Your task to perform on an android device: Open Youtube and go to the subscriptions tab Image 0: 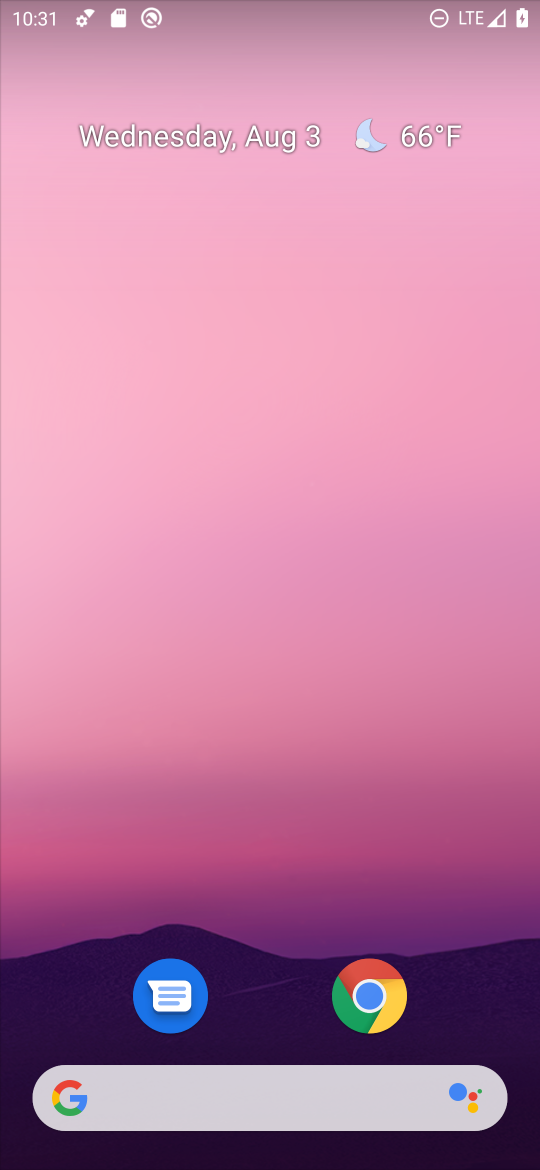
Step 0: drag from (433, 540) to (443, 0)
Your task to perform on an android device: Open Youtube and go to the subscriptions tab Image 1: 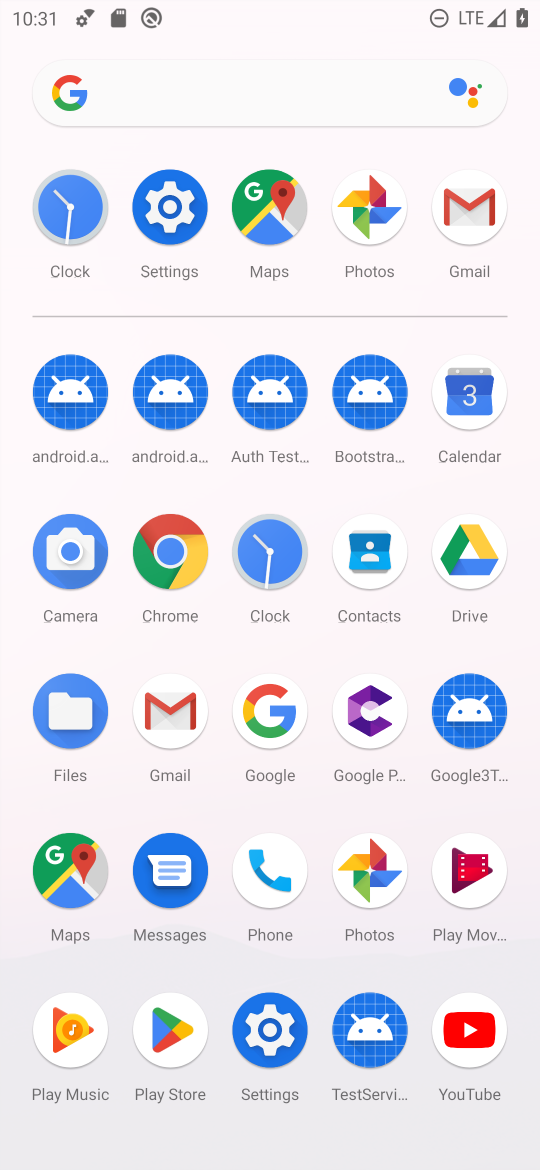
Step 1: click (472, 1024)
Your task to perform on an android device: Open Youtube and go to the subscriptions tab Image 2: 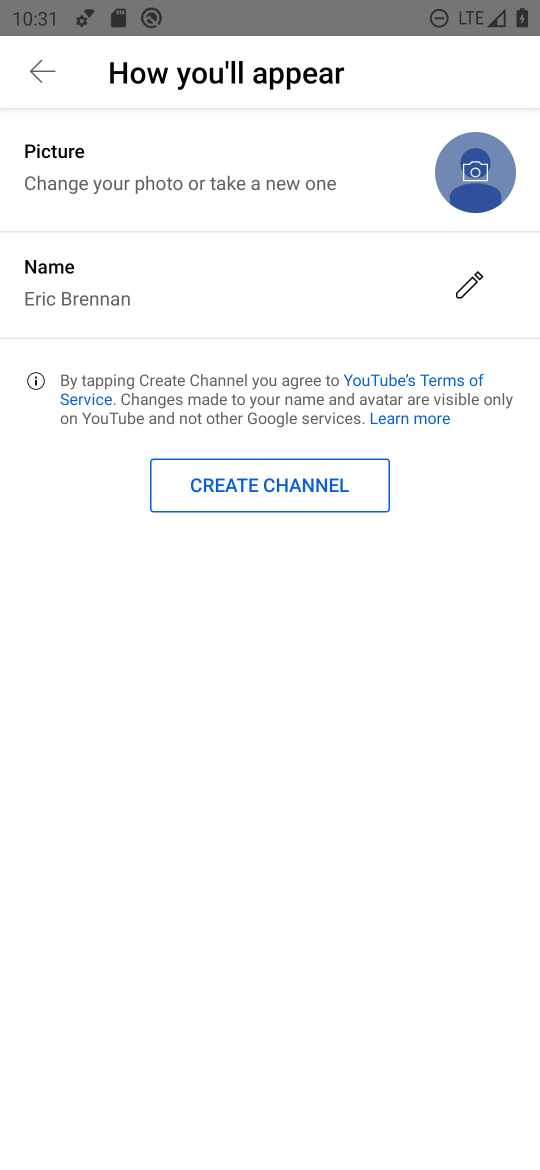
Step 2: click (46, 70)
Your task to perform on an android device: Open Youtube and go to the subscriptions tab Image 3: 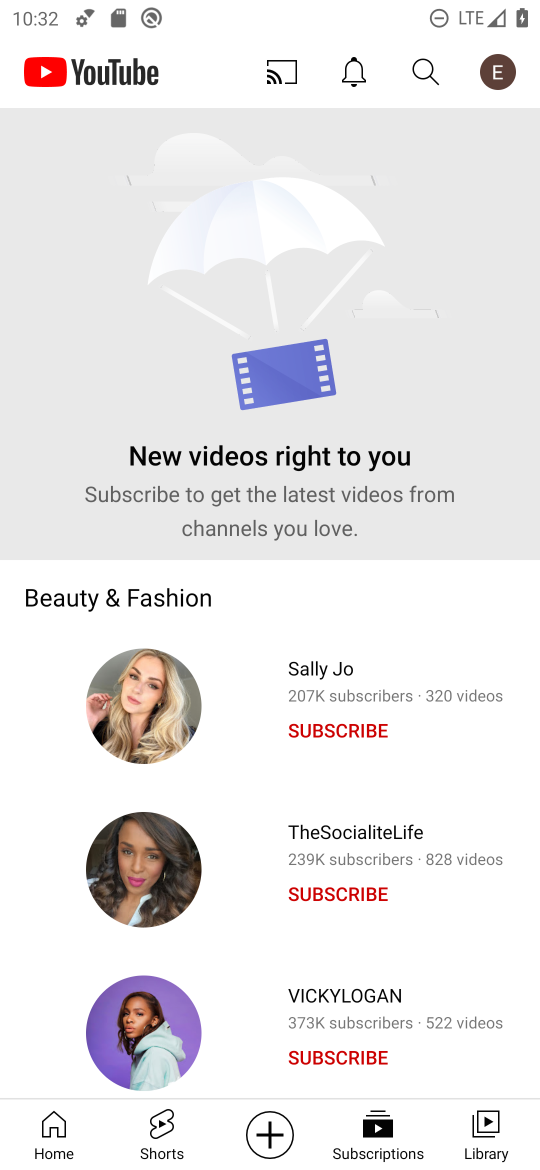
Step 3: click (381, 1124)
Your task to perform on an android device: Open Youtube and go to the subscriptions tab Image 4: 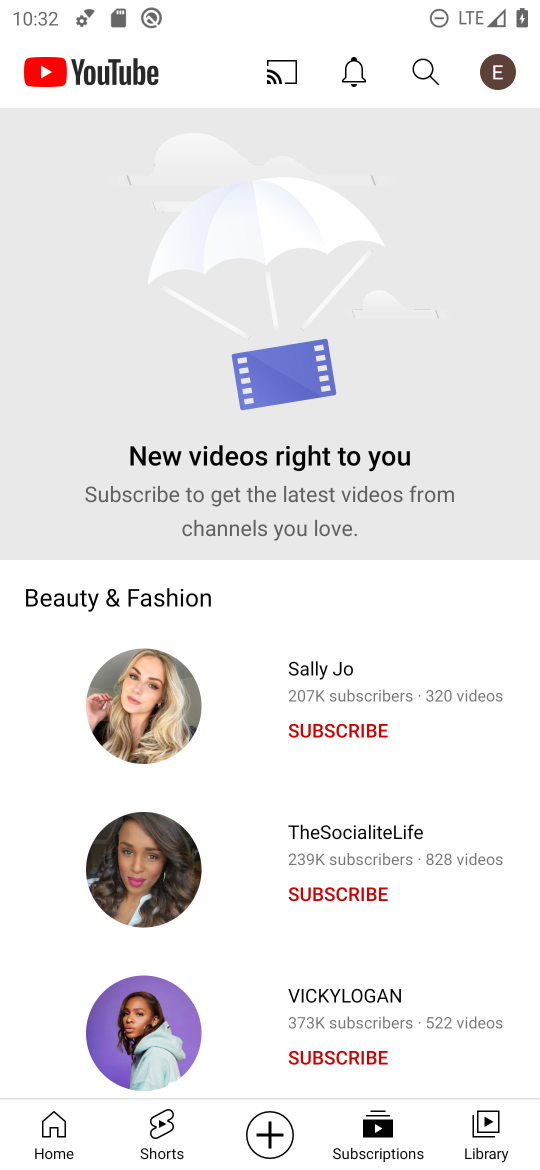
Step 4: task complete